Your task to perform on an android device: turn on notifications settings in the gmail app Image 0: 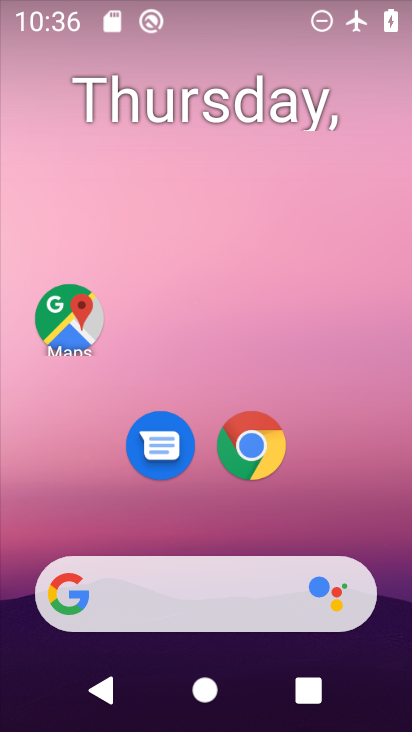
Step 0: drag from (214, 525) to (171, 45)
Your task to perform on an android device: turn on notifications settings in the gmail app Image 1: 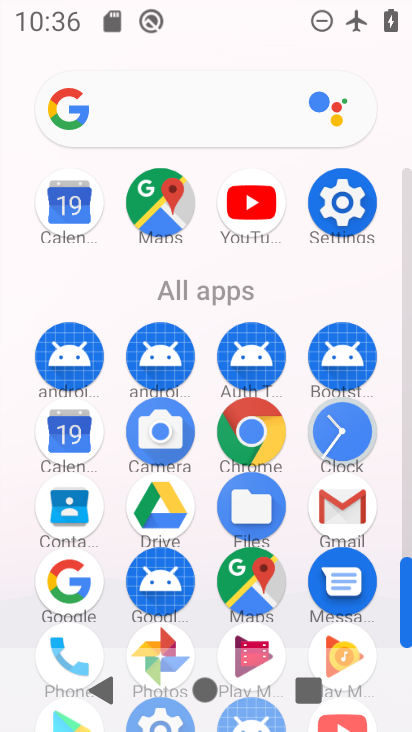
Step 1: click (344, 501)
Your task to perform on an android device: turn on notifications settings in the gmail app Image 2: 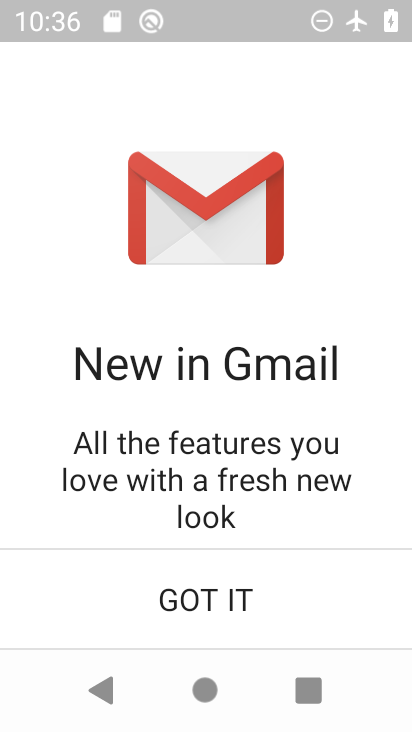
Step 2: click (172, 600)
Your task to perform on an android device: turn on notifications settings in the gmail app Image 3: 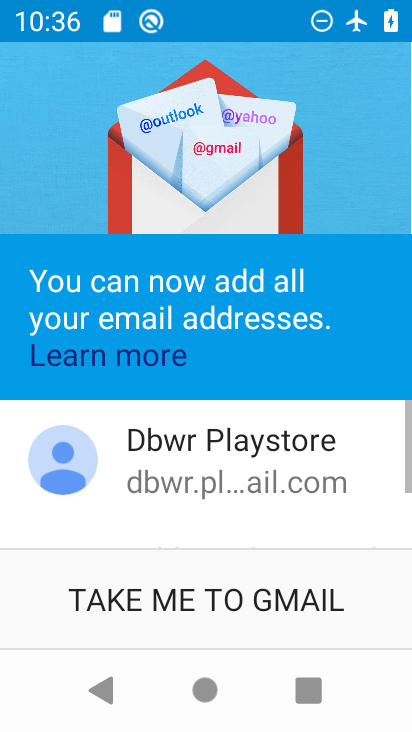
Step 3: click (182, 588)
Your task to perform on an android device: turn on notifications settings in the gmail app Image 4: 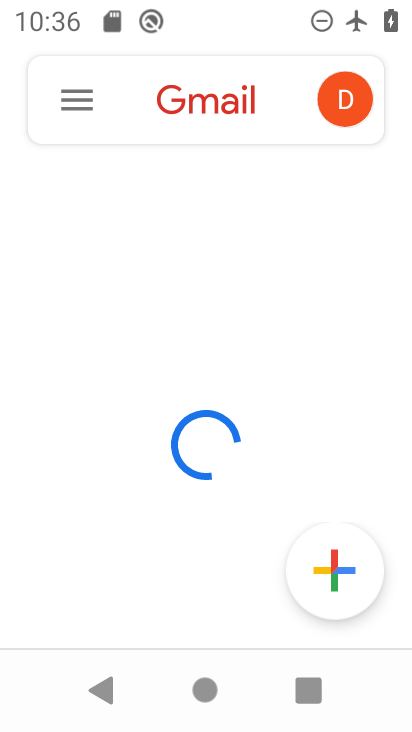
Step 4: click (71, 99)
Your task to perform on an android device: turn on notifications settings in the gmail app Image 5: 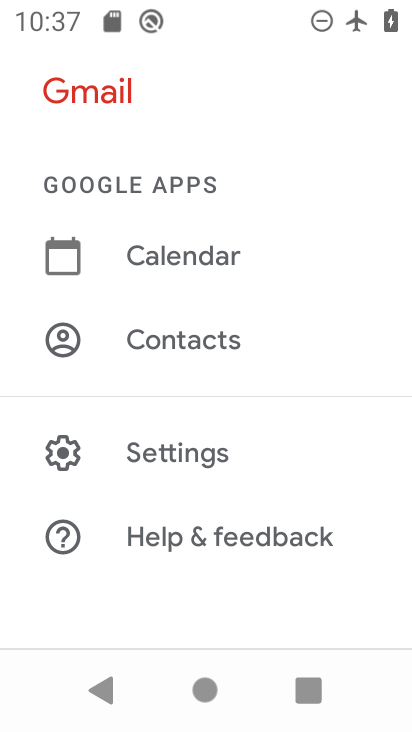
Step 5: click (185, 444)
Your task to perform on an android device: turn on notifications settings in the gmail app Image 6: 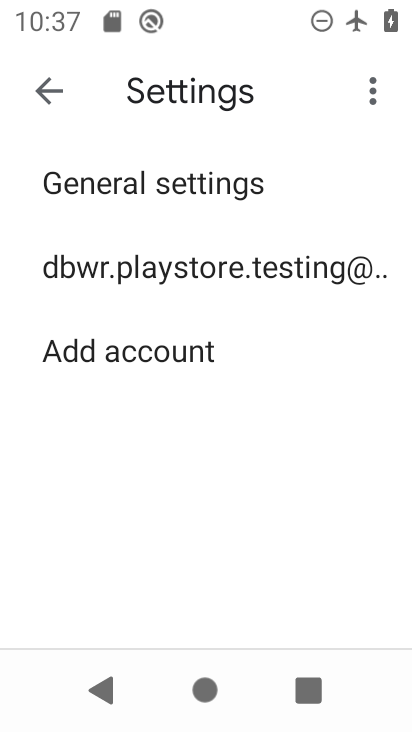
Step 6: click (180, 207)
Your task to perform on an android device: turn on notifications settings in the gmail app Image 7: 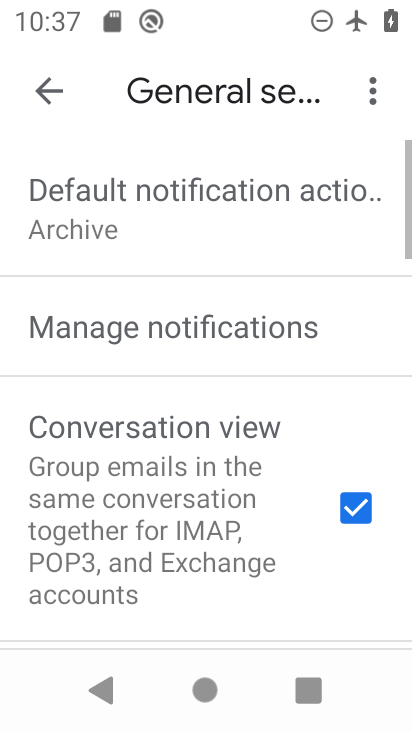
Step 7: click (242, 357)
Your task to perform on an android device: turn on notifications settings in the gmail app Image 8: 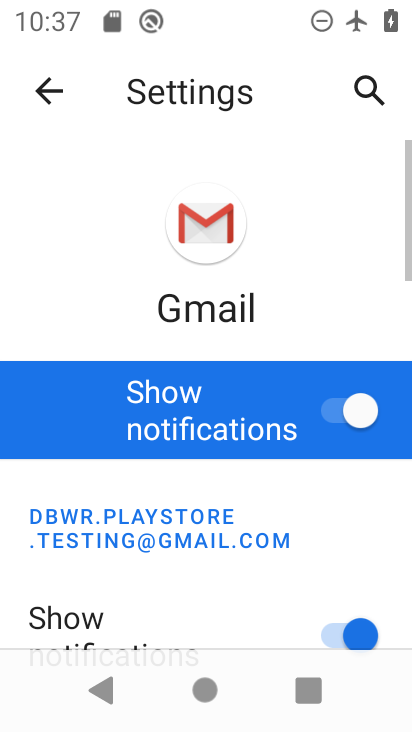
Step 8: task complete